Your task to perform on an android device: Open the phone app and click the voicemail tab. Image 0: 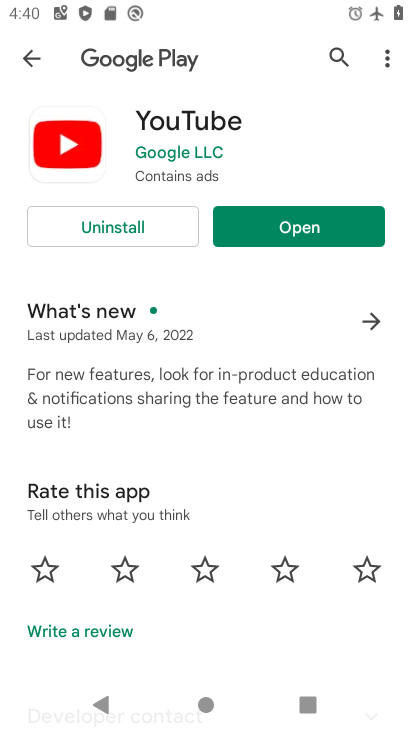
Step 0: press home button
Your task to perform on an android device: Open the phone app and click the voicemail tab. Image 1: 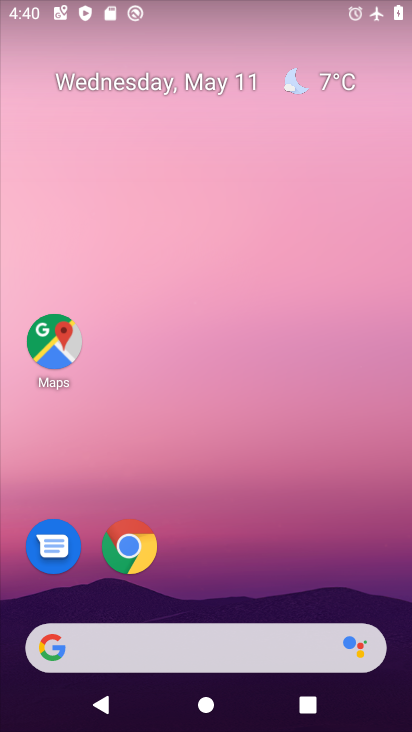
Step 1: drag from (352, 634) to (395, 421)
Your task to perform on an android device: Open the phone app and click the voicemail tab. Image 2: 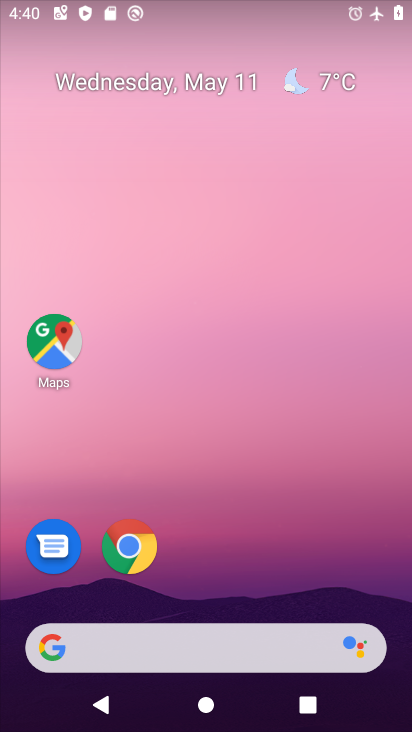
Step 2: drag from (257, 642) to (248, 41)
Your task to perform on an android device: Open the phone app and click the voicemail tab. Image 3: 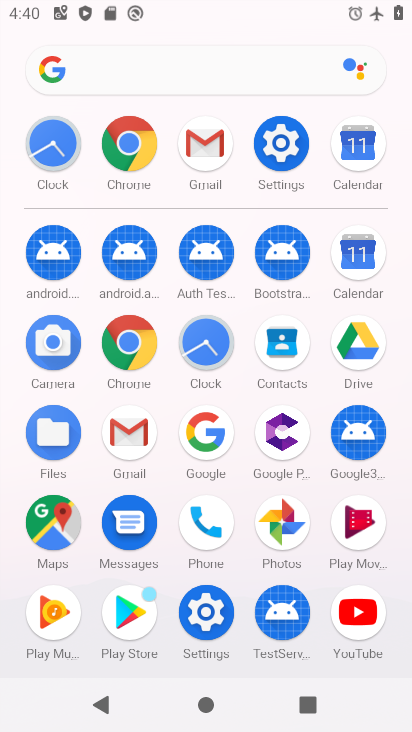
Step 3: click (206, 520)
Your task to perform on an android device: Open the phone app and click the voicemail tab. Image 4: 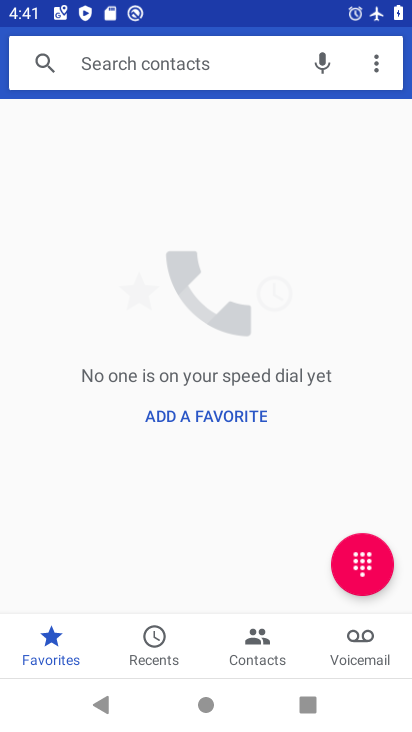
Step 4: click (368, 642)
Your task to perform on an android device: Open the phone app and click the voicemail tab. Image 5: 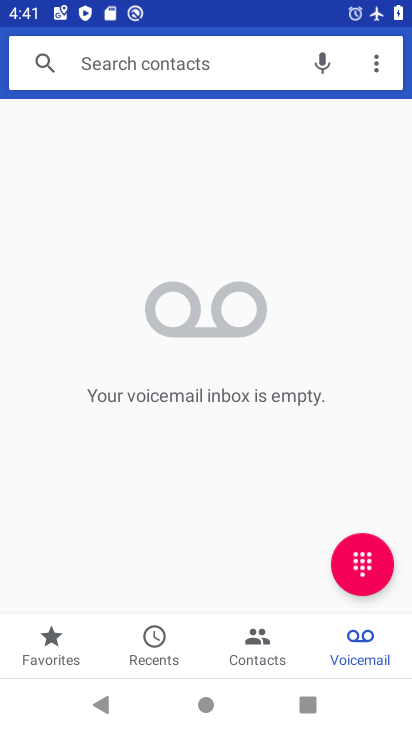
Step 5: task complete